Your task to perform on an android device: Search for sushi restaurants on Maps Image 0: 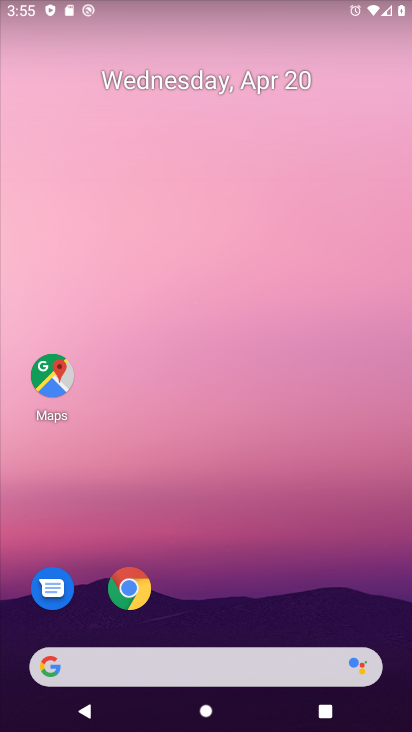
Step 0: click (49, 374)
Your task to perform on an android device: Search for sushi restaurants on Maps Image 1: 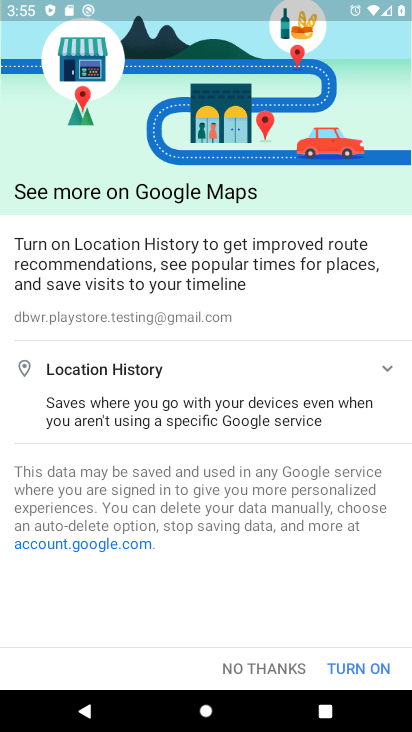
Step 1: click (355, 669)
Your task to perform on an android device: Search for sushi restaurants on Maps Image 2: 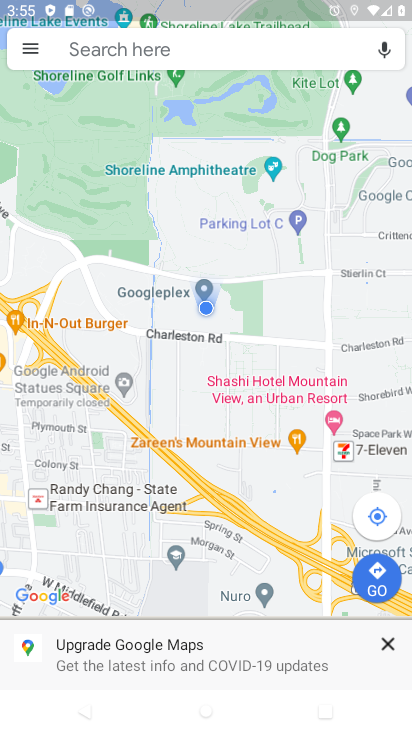
Step 2: click (145, 42)
Your task to perform on an android device: Search for sushi restaurants on Maps Image 3: 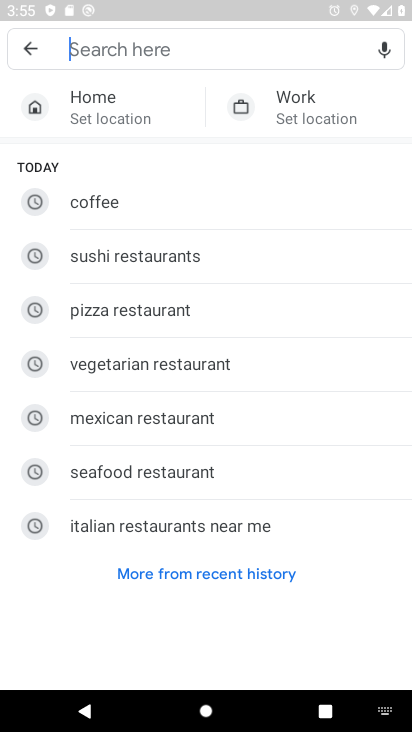
Step 3: click (179, 256)
Your task to perform on an android device: Search for sushi restaurants on Maps Image 4: 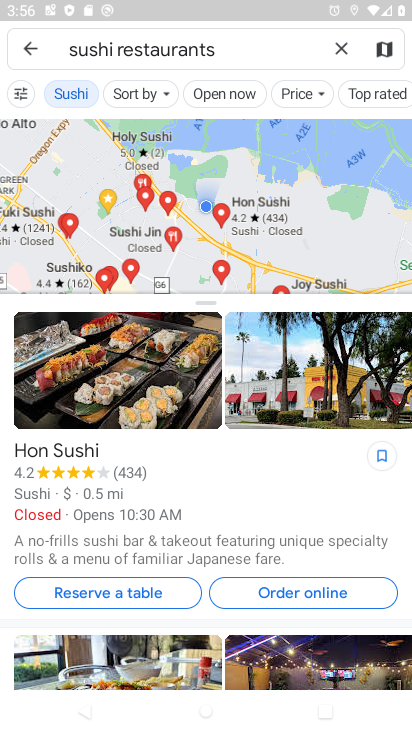
Step 4: task complete